Your task to perform on an android device: open app "Pandora - Music & Podcasts" (install if not already installed) Image 0: 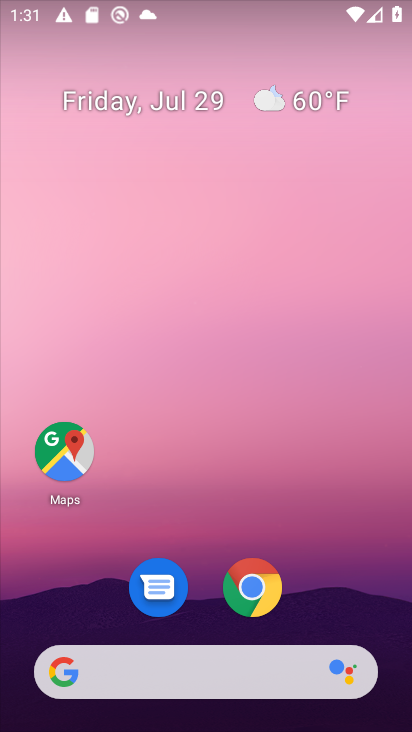
Step 0: drag from (195, 726) to (225, 27)
Your task to perform on an android device: open app "Pandora - Music & Podcasts" (install if not already installed) Image 1: 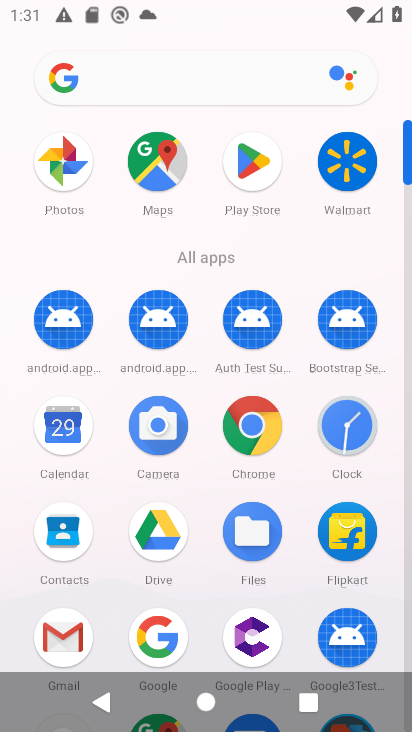
Step 1: click (263, 162)
Your task to perform on an android device: open app "Pandora - Music & Podcasts" (install if not already installed) Image 2: 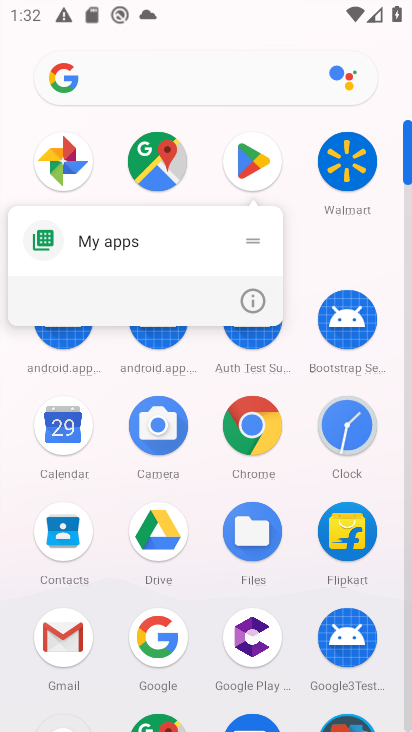
Step 2: click (260, 158)
Your task to perform on an android device: open app "Pandora - Music & Podcasts" (install if not already installed) Image 3: 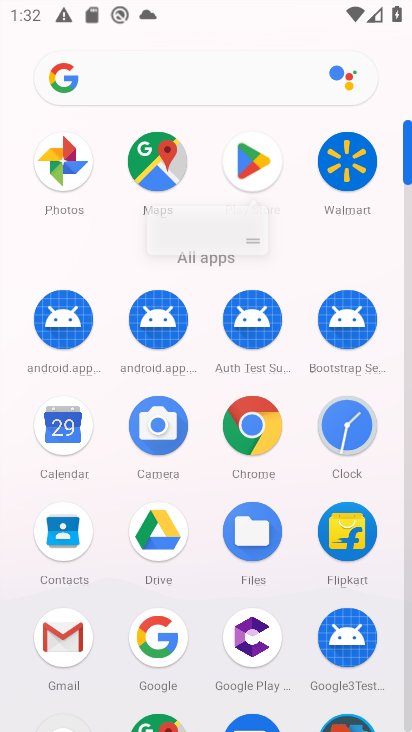
Step 3: click (260, 158)
Your task to perform on an android device: open app "Pandora - Music & Podcasts" (install if not already installed) Image 4: 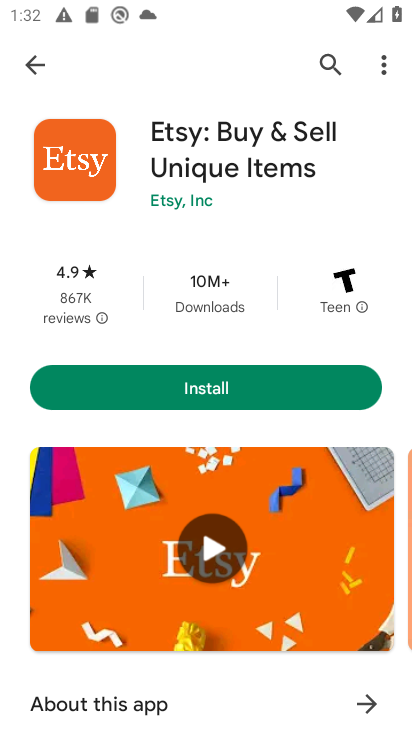
Step 4: click (315, 68)
Your task to perform on an android device: open app "Pandora - Music & Podcasts" (install if not already installed) Image 5: 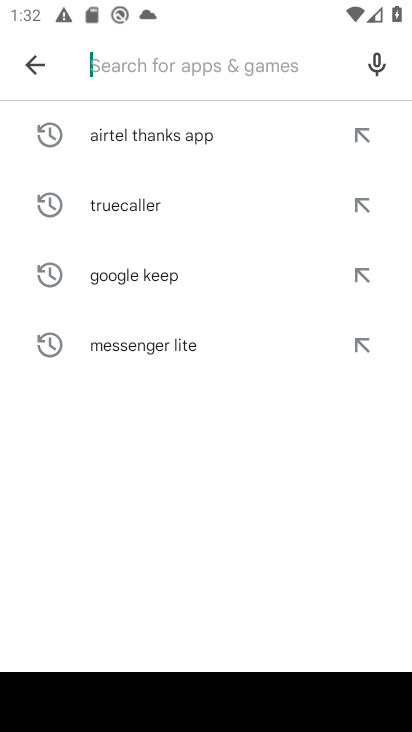
Step 5: type "Pandora - Music & Podcasts"
Your task to perform on an android device: open app "Pandora - Music & Podcasts" (install if not already installed) Image 6: 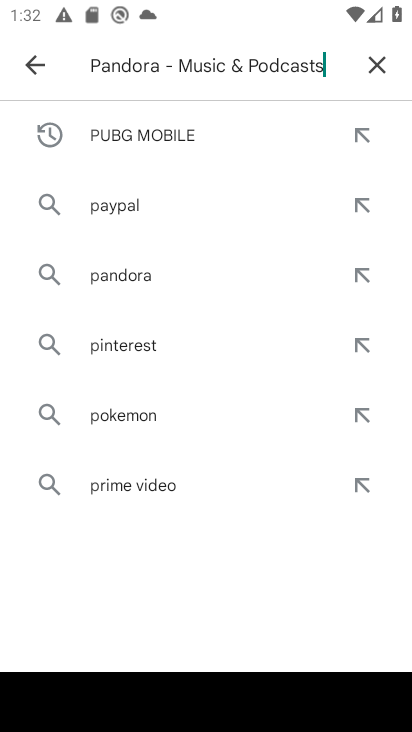
Step 6: type ""
Your task to perform on an android device: open app "Pandora - Music & Podcasts" (install if not already installed) Image 7: 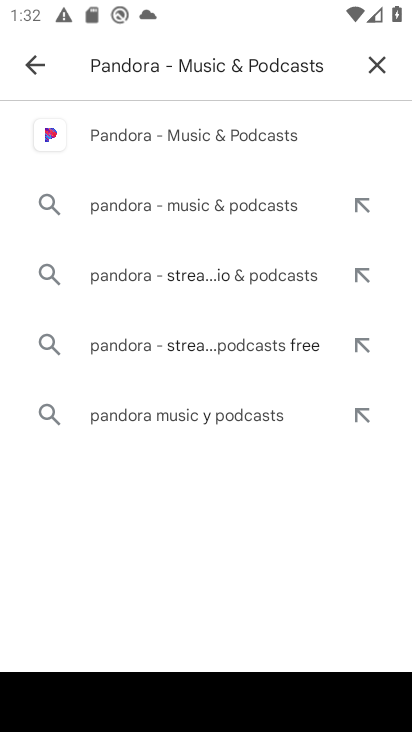
Step 7: click (263, 143)
Your task to perform on an android device: open app "Pandora - Music & Podcasts" (install if not already installed) Image 8: 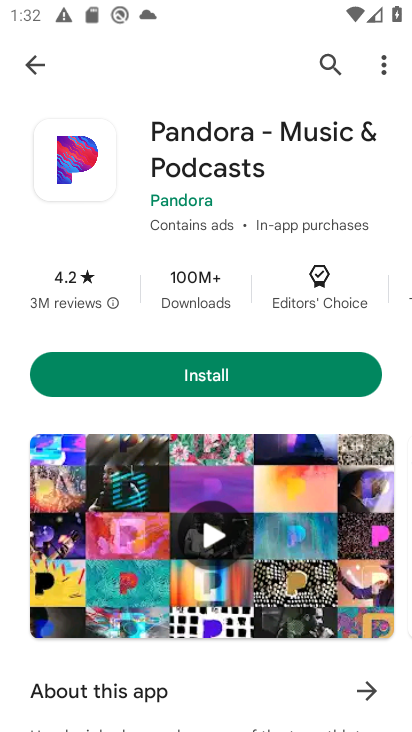
Step 8: click (311, 368)
Your task to perform on an android device: open app "Pandora - Music & Podcasts" (install if not already installed) Image 9: 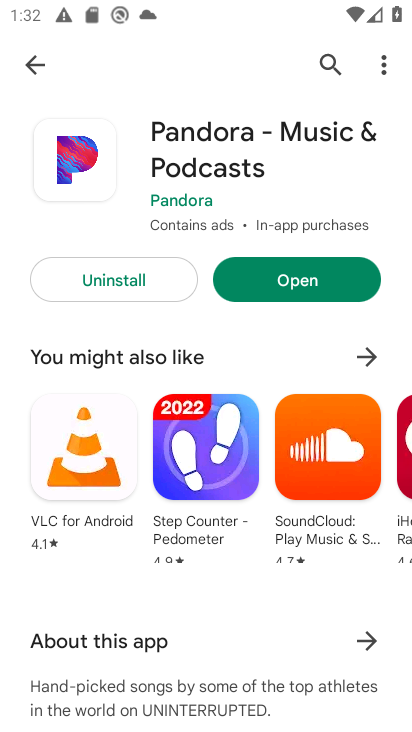
Step 9: click (305, 285)
Your task to perform on an android device: open app "Pandora - Music & Podcasts" (install if not already installed) Image 10: 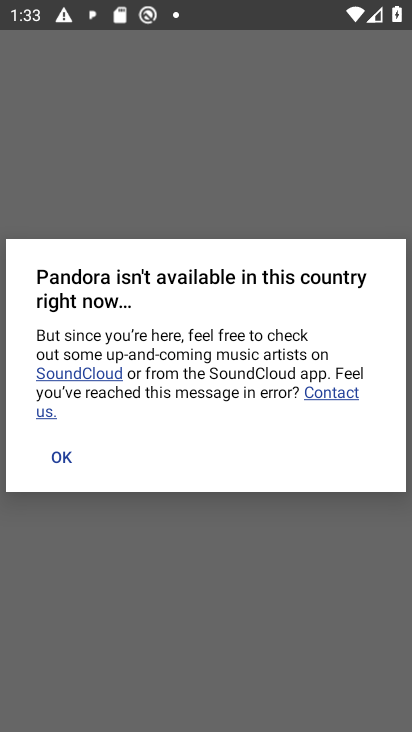
Step 10: task complete